Your task to perform on an android device: Open Chrome and go to the settings page Image 0: 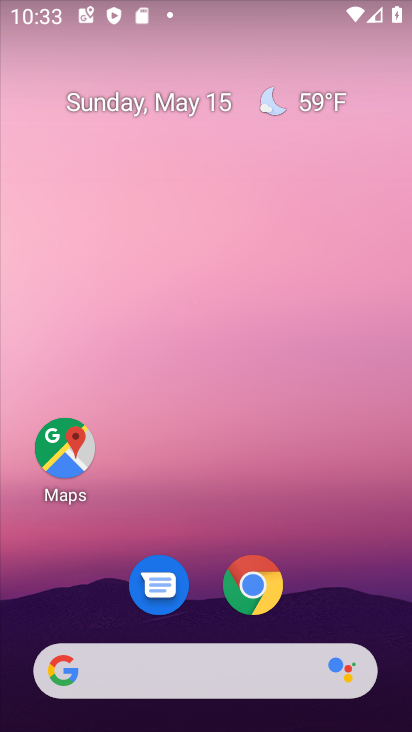
Step 0: click (259, 566)
Your task to perform on an android device: Open Chrome and go to the settings page Image 1: 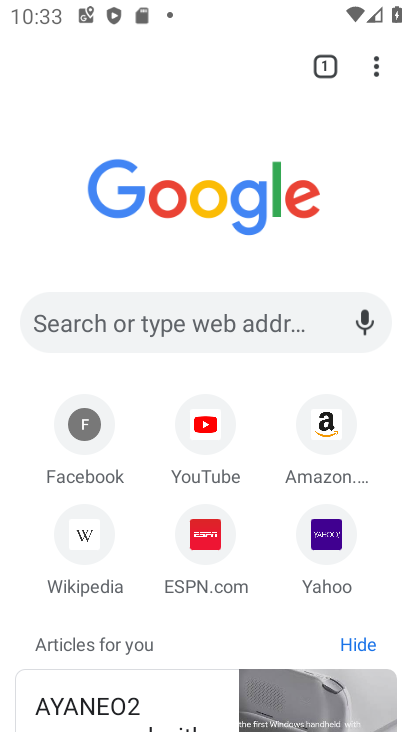
Step 1: click (369, 65)
Your task to perform on an android device: Open Chrome and go to the settings page Image 2: 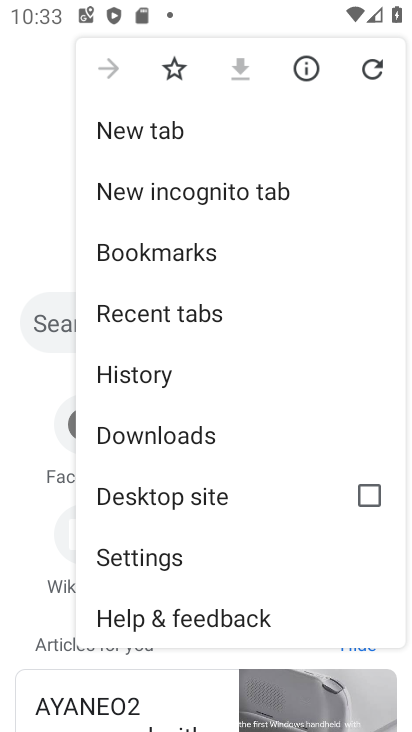
Step 2: click (219, 550)
Your task to perform on an android device: Open Chrome and go to the settings page Image 3: 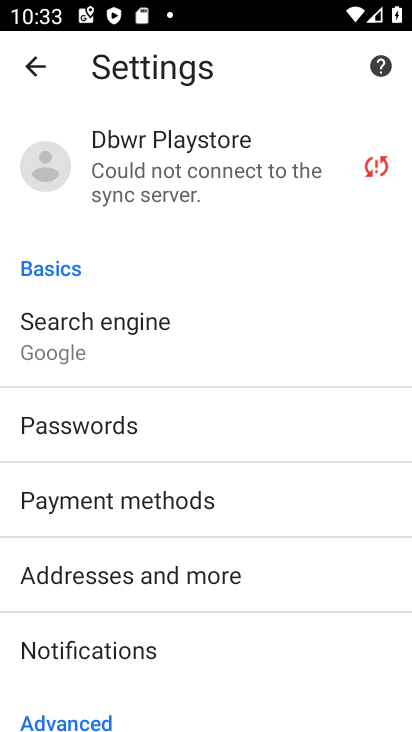
Step 3: task complete